Your task to perform on an android device: Show me productivity apps on the Play Store Image 0: 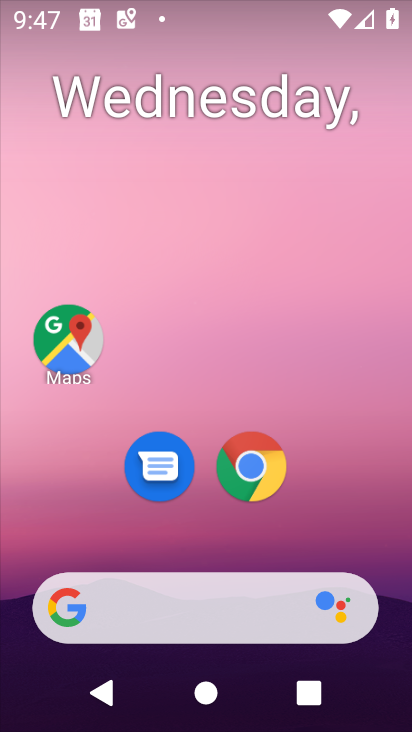
Step 0: drag from (329, 535) to (378, 205)
Your task to perform on an android device: Show me productivity apps on the Play Store Image 1: 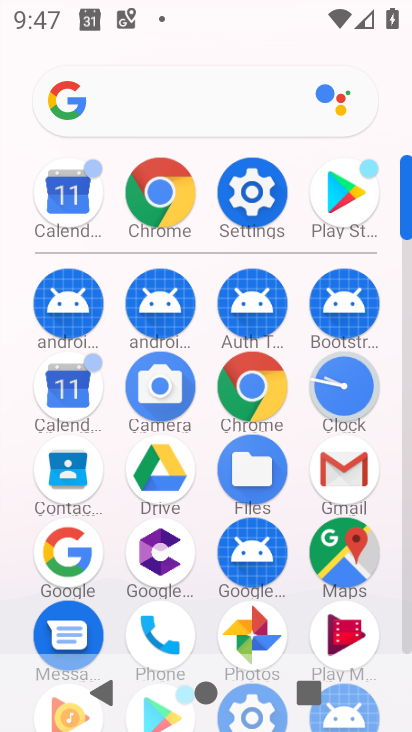
Step 1: drag from (235, 579) to (275, 265)
Your task to perform on an android device: Show me productivity apps on the Play Store Image 2: 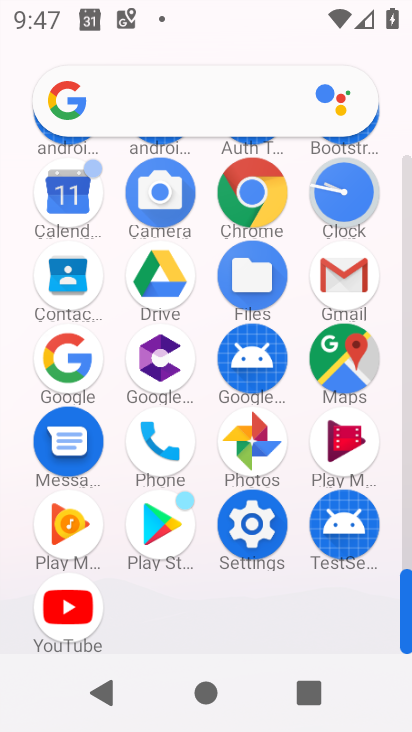
Step 2: click (158, 531)
Your task to perform on an android device: Show me productivity apps on the Play Store Image 3: 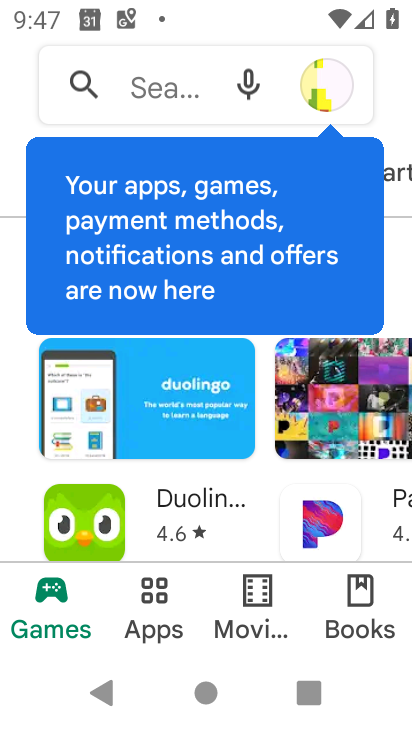
Step 3: click (163, 582)
Your task to perform on an android device: Show me productivity apps on the Play Store Image 4: 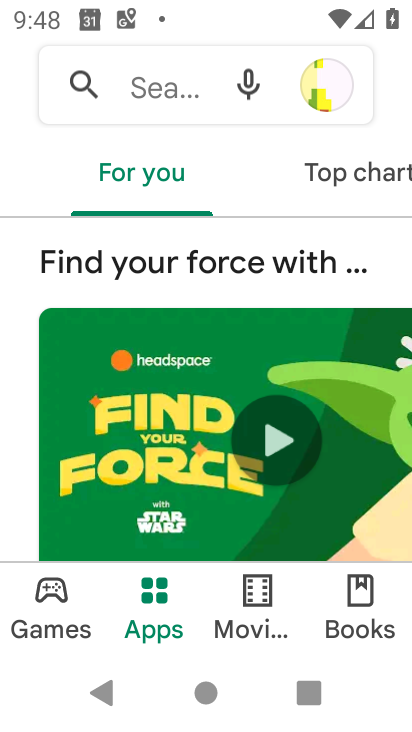
Step 4: task complete